Your task to perform on an android device: install app "Venmo" Image 0: 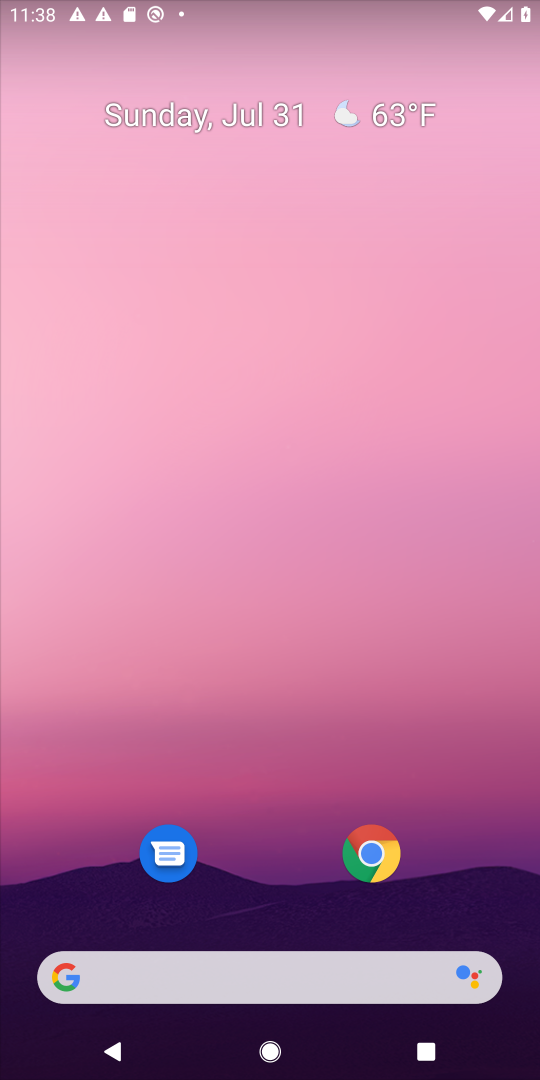
Step 0: drag from (309, 895) to (309, 77)
Your task to perform on an android device: install app "Venmo" Image 1: 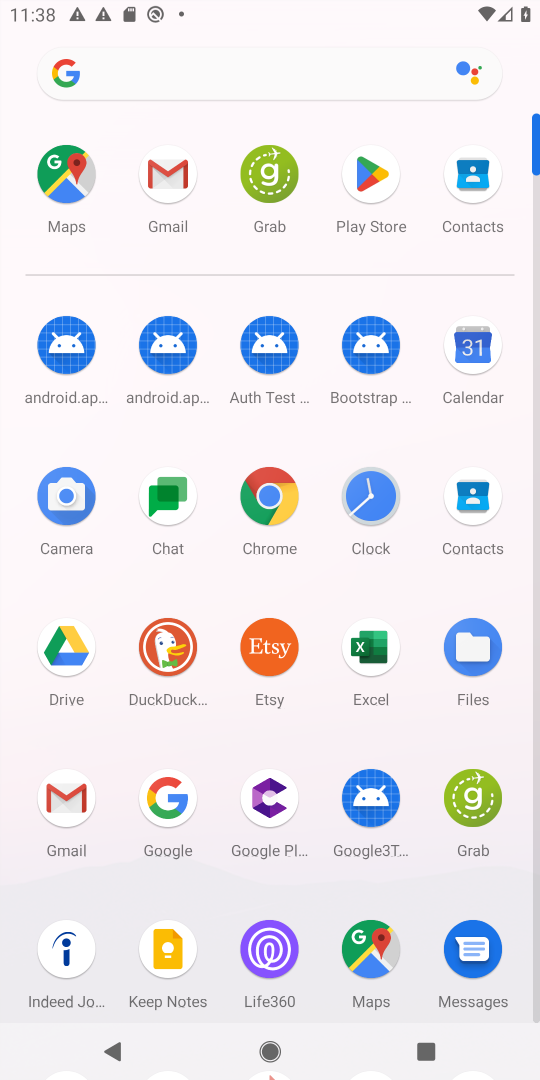
Step 1: click (374, 182)
Your task to perform on an android device: install app "Venmo" Image 2: 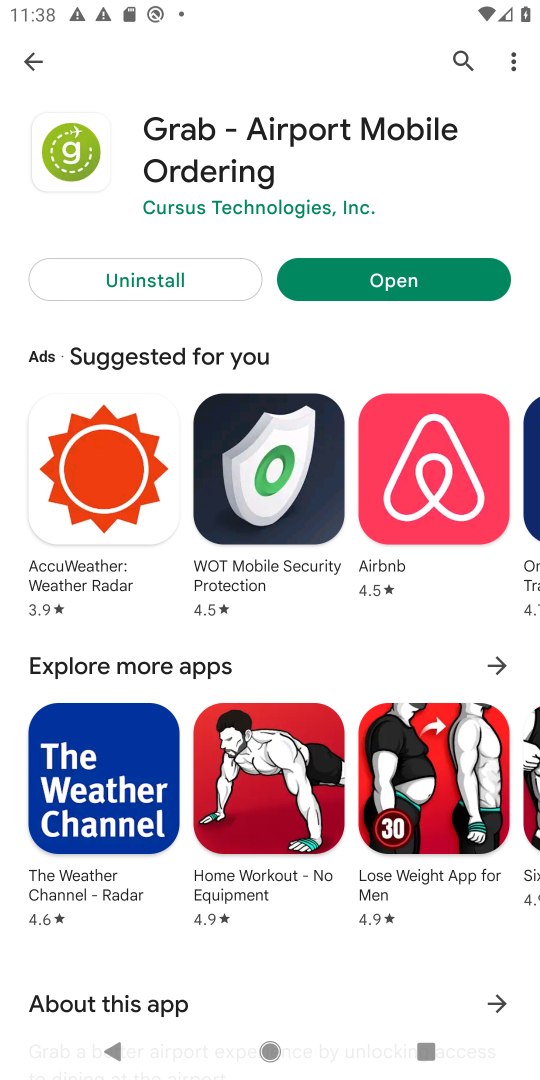
Step 2: click (461, 52)
Your task to perform on an android device: install app "Venmo" Image 3: 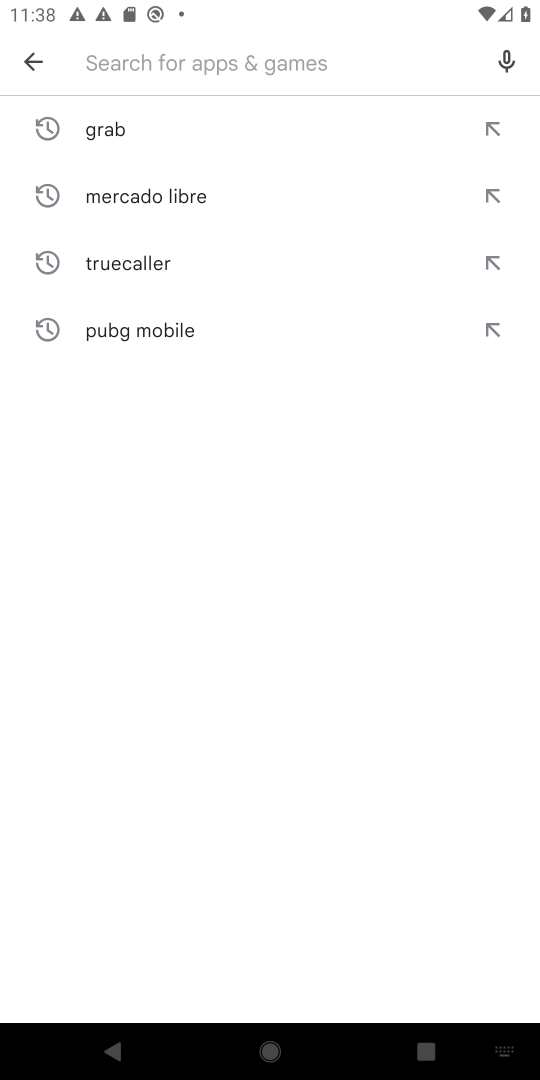
Step 3: type "Venmo"
Your task to perform on an android device: install app "Venmo" Image 4: 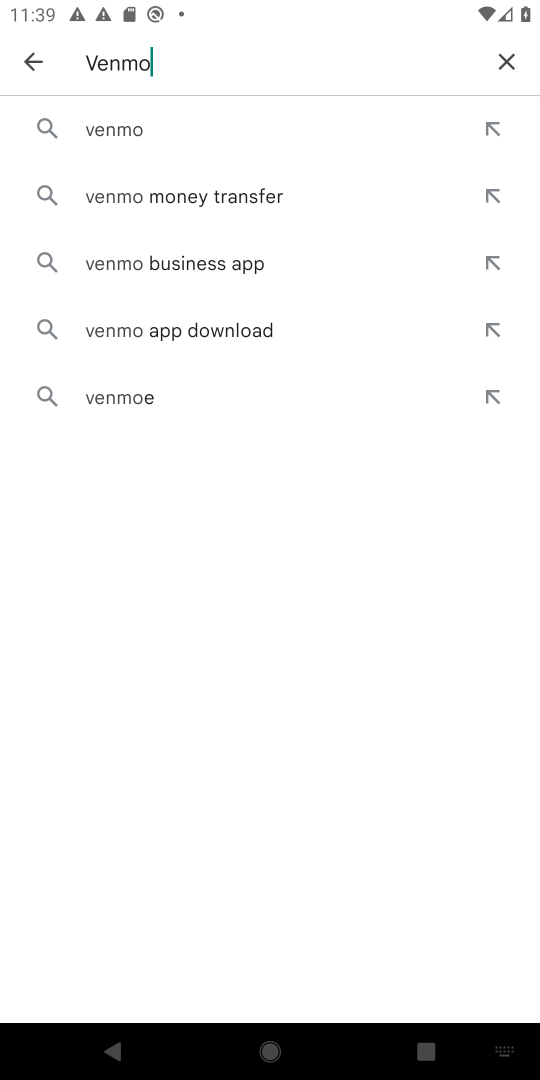
Step 4: click (115, 127)
Your task to perform on an android device: install app "Venmo" Image 5: 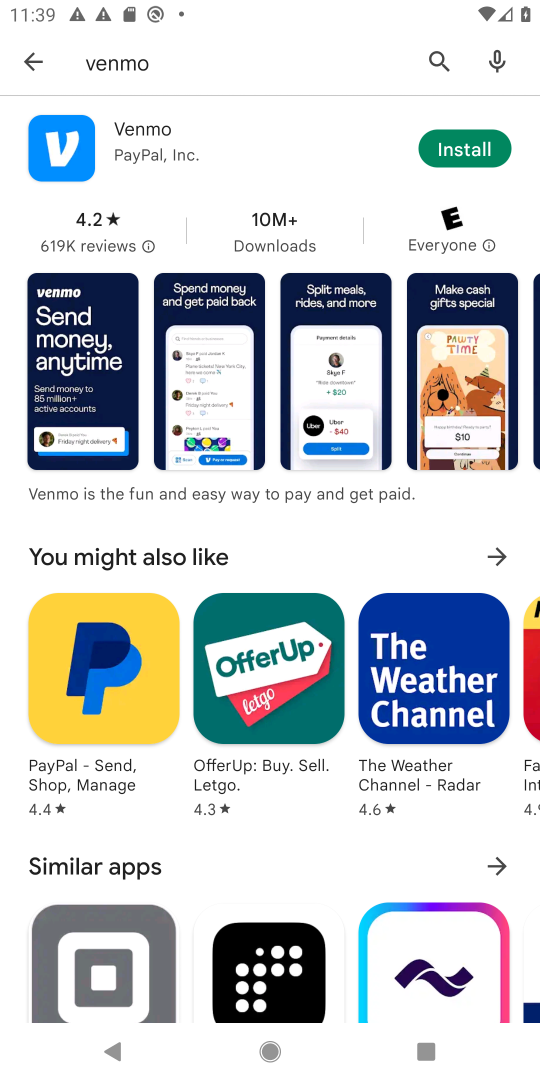
Step 5: click (467, 154)
Your task to perform on an android device: install app "Venmo" Image 6: 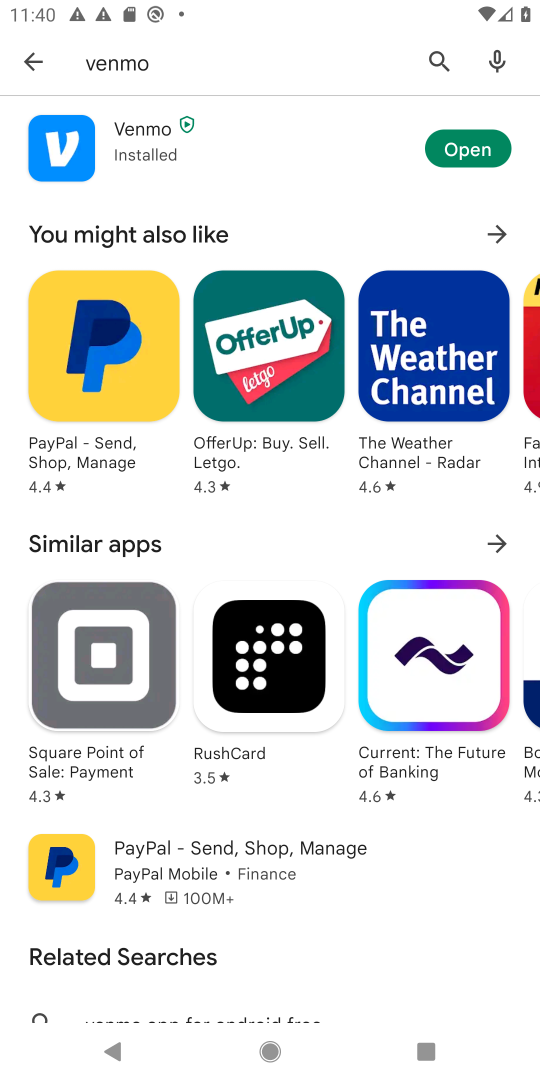
Step 6: task complete